Your task to perform on an android device: change notification settings in the gmail app Image 0: 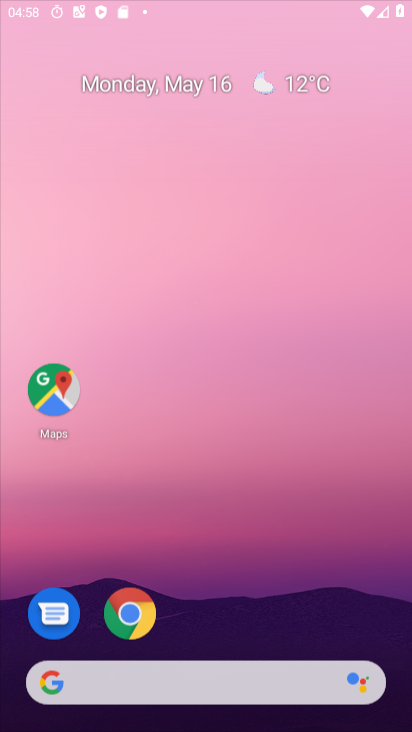
Step 0: click (214, 12)
Your task to perform on an android device: change notification settings in the gmail app Image 1: 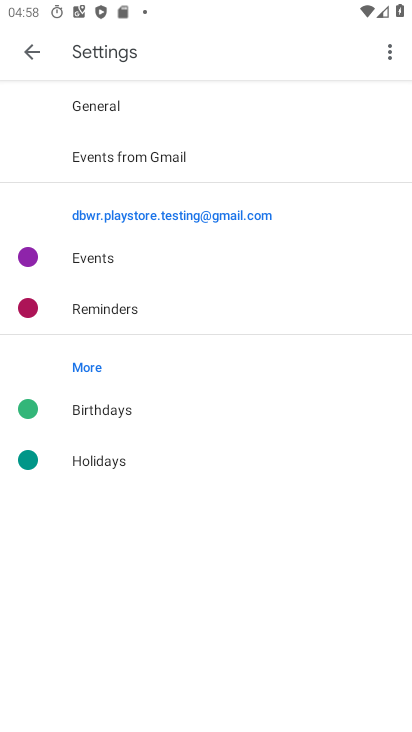
Step 1: press back button
Your task to perform on an android device: change notification settings in the gmail app Image 2: 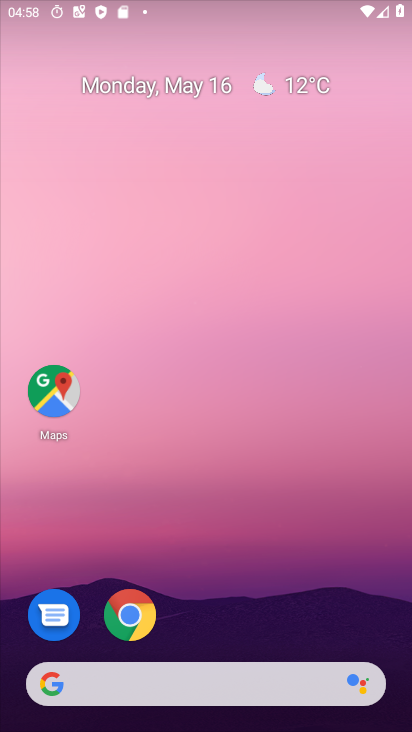
Step 2: drag from (339, 619) to (31, 114)
Your task to perform on an android device: change notification settings in the gmail app Image 3: 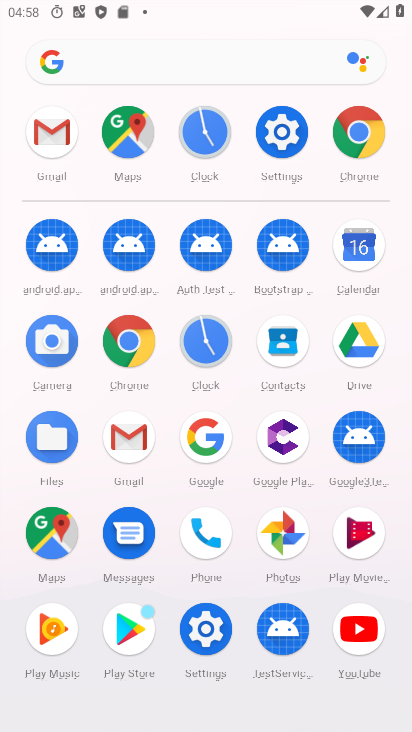
Step 3: click (135, 437)
Your task to perform on an android device: change notification settings in the gmail app Image 4: 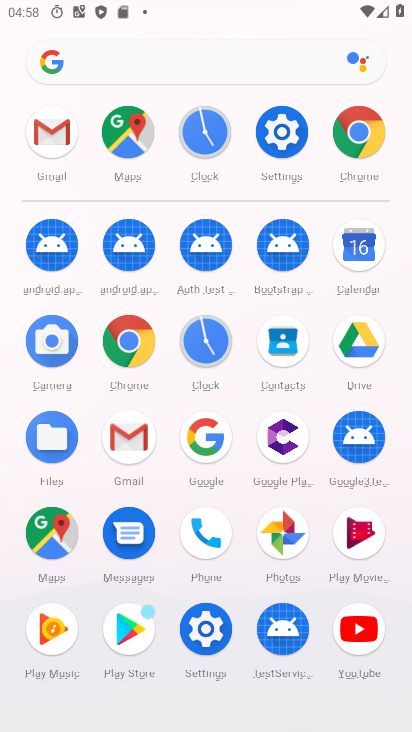
Step 4: click (128, 429)
Your task to perform on an android device: change notification settings in the gmail app Image 5: 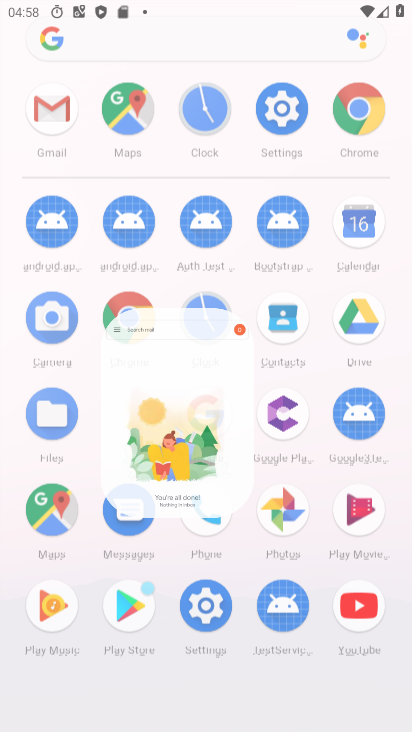
Step 5: click (128, 427)
Your task to perform on an android device: change notification settings in the gmail app Image 6: 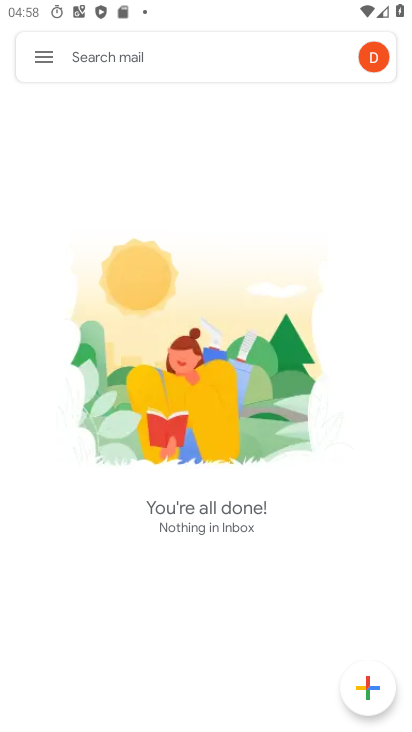
Step 6: drag from (196, 664) to (137, 176)
Your task to perform on an android device: change notification settings in the gmail app Image 7: 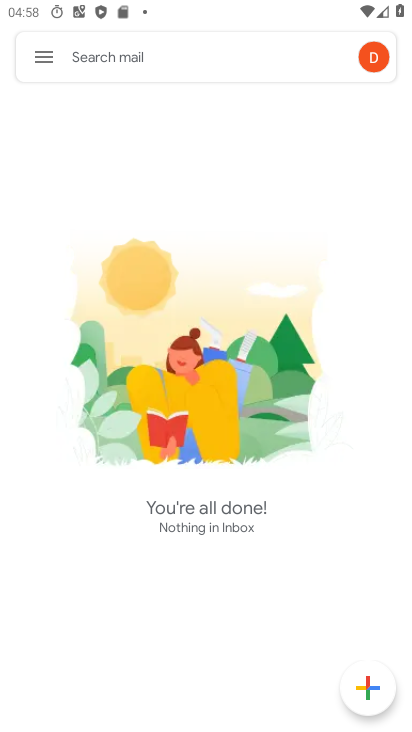
Step 7: click (50, 57)
Your task to perform on an android device: change notification settings in the gmail app Image 8: 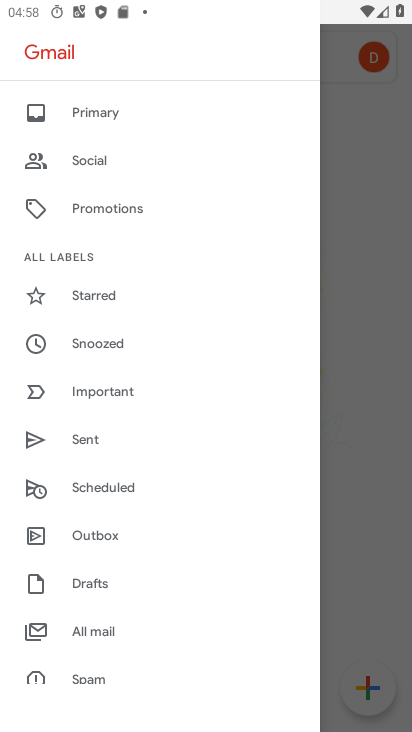
Step 8: drag from (102, 521) to (115, 65)
Your task to perform on an android device: change notification settings in the gmail app Image 9: 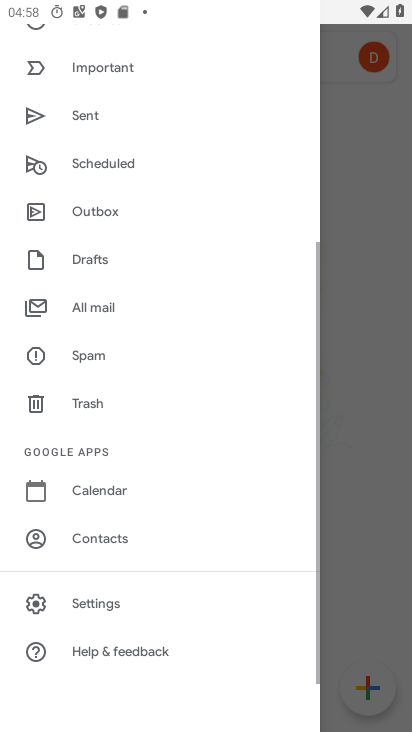
Step 9: drag from (157, 491) to (147, 117)
Your task to perform on an android device: change notification settings in the gmail app Image 10: 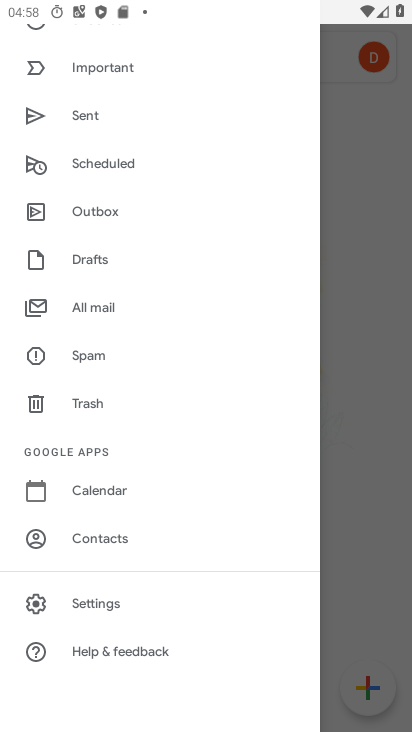
Step 10: click (89, 603)
Your task to perform on an android device: change notification settings in the gmail app Image 11: 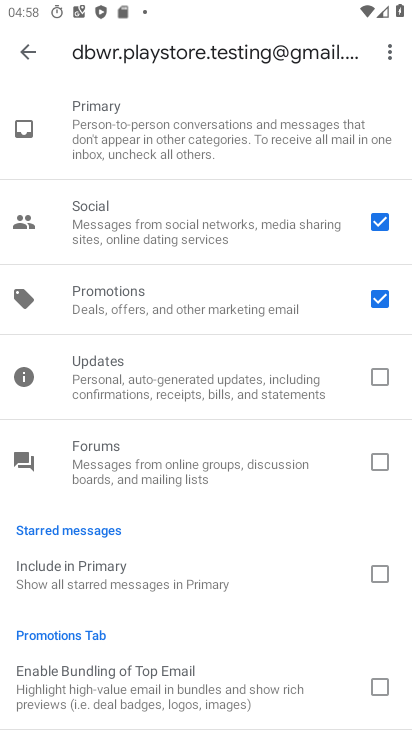
Step 11: click (28, 44)
Your task to perform on an android device: change notification settings in the gmail app Image 12: 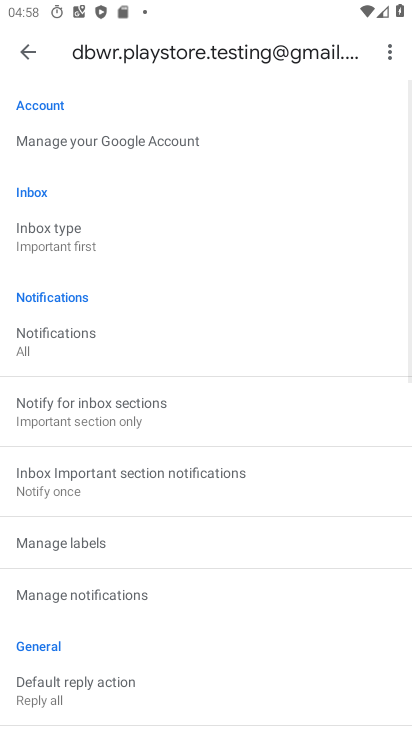
Step 12: click (27, 343)
Your task to perform on an android device: change notification settings in the gmail app Image 13: 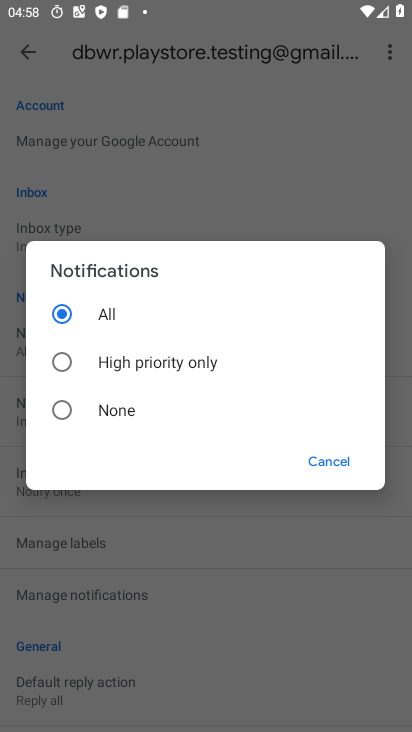
Step 13: click (56, 363)
Your task to perform on an android device: change notification settings in the gmail app Image 14: 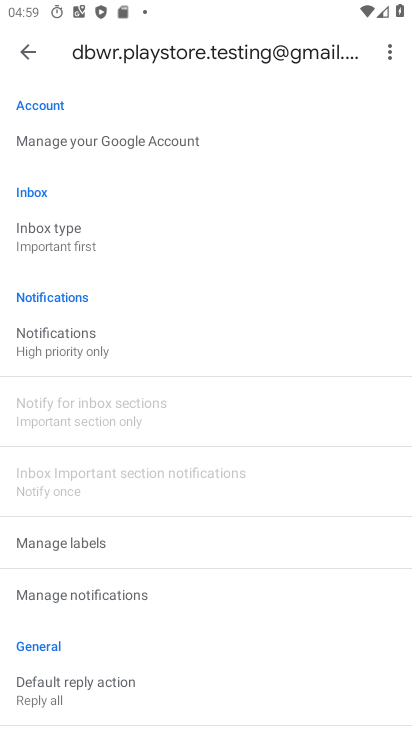
Step 14: task complete